Your task to perform on an android device: What's on my calendar today? Image 0: 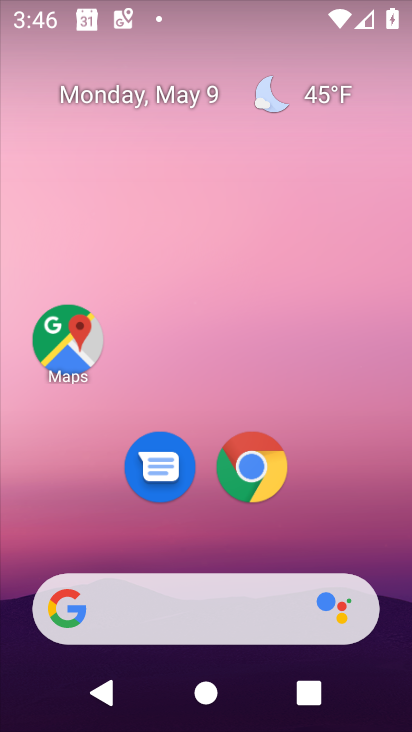
Step 0: drag from (305, 549) to (361, 110)
Your task to perform on an android device: What's on my calendar today? Image 1: 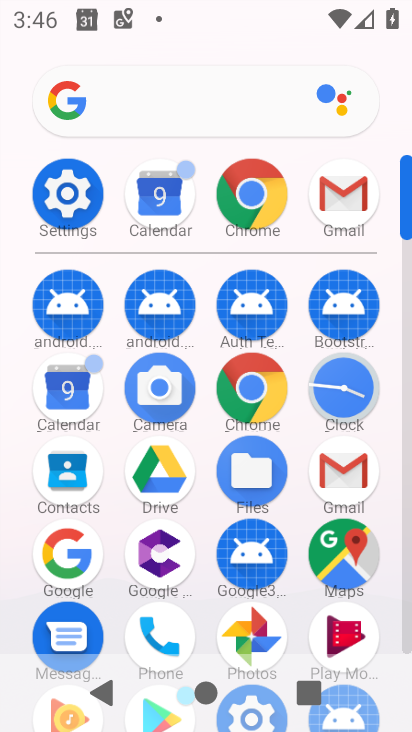
Step 1: click (67, 404)
Your task to perform on an android device: What's on my calendar today? Image 2: 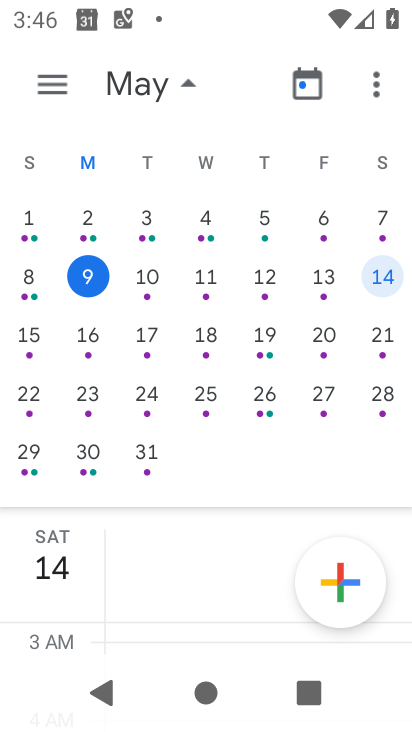
Step 2: task complete